Your task to perform on an android device: turn off improve location accuracy Image 0: 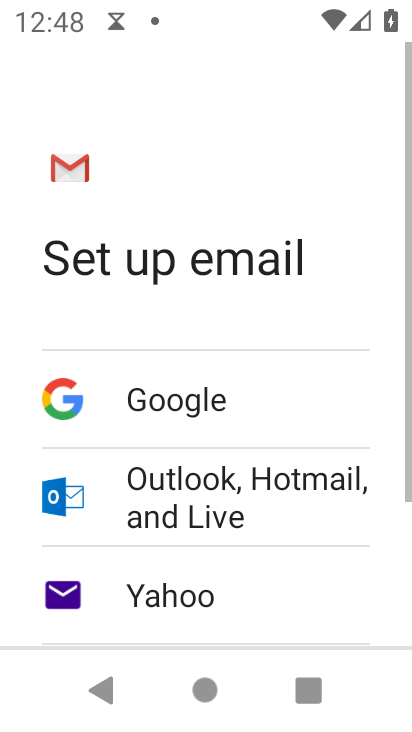
Step 0: press back button
Your task to perform on an android device: turn off improve location accuracy Image 1: 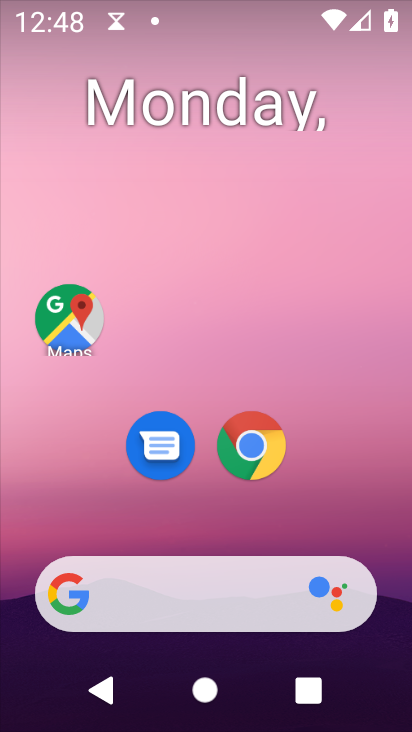
Step 1: drag from (331, 699) to (97, 177)
Your task to perform on an android device: turn off improve location accuracy Image 2: 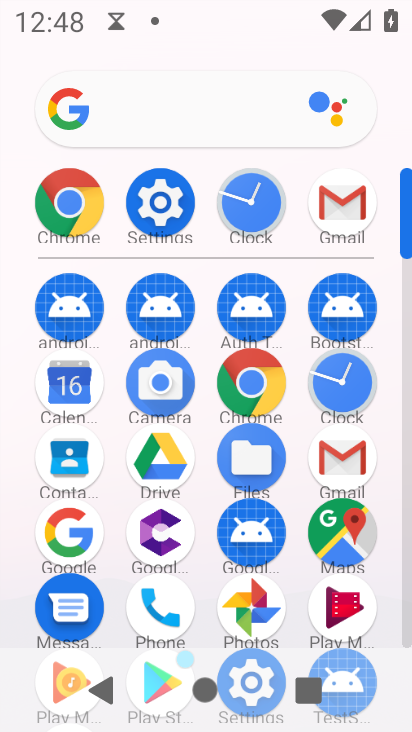
Step 2: click (164, 205)
Your task to perform on an android device: turn off improve location accuracy Image 3: 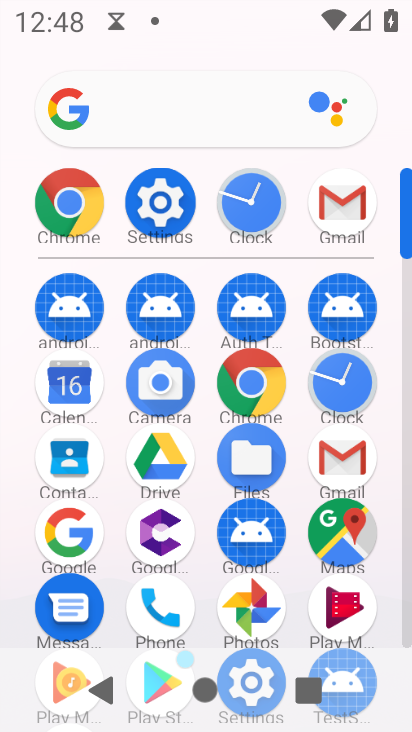
Step 3: click (167, 205)
Your task to perform on an android device: turn off improve location accuracy Image 4: 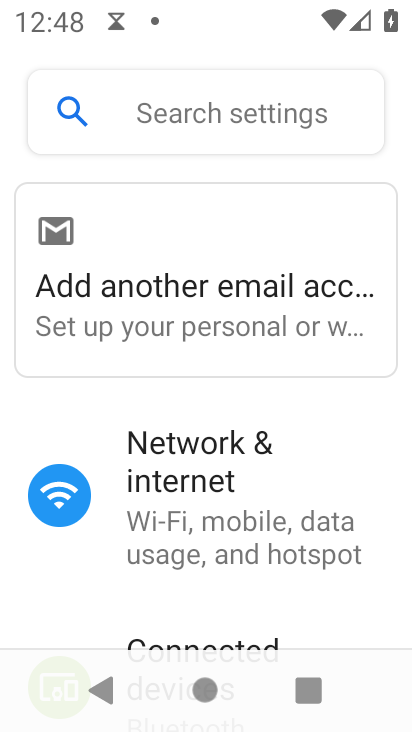
Step 4: drag from (285, 526) to (275, 162)
Your task to perform on an android device: turn off improve location accuracy Image 5: 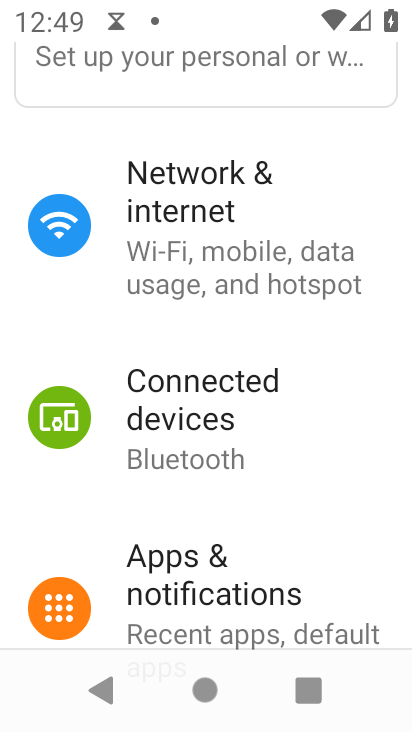
Step 5: drag from (306, 493) to (235, 73)
Your task to perform on an android device: turn off improve location accuracy Image 6: 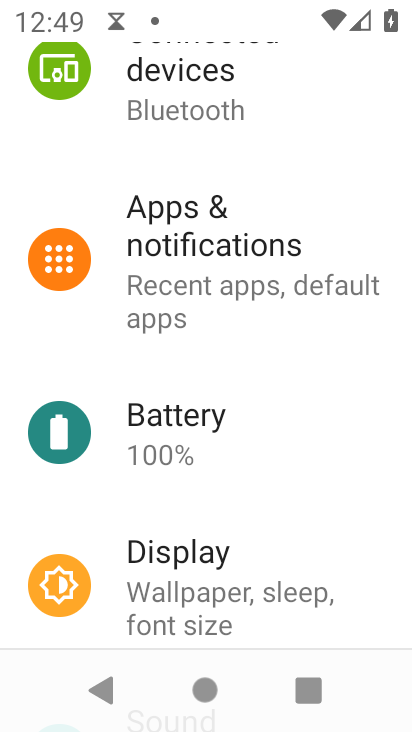
Step 6: drag from (240, 399) to (192, 82)
Your task to perform on an android device: turn off improve location accuracy Image 7: 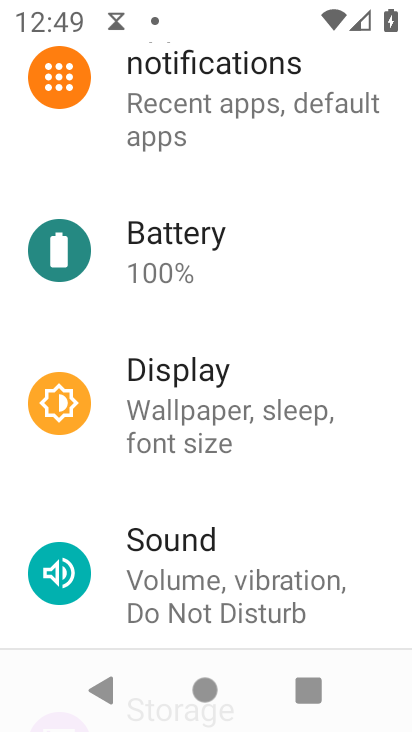
Step 7: drag from (211, 405) to (184, 68)
Your task to perform on an android device: turn off improve location accuracy Image 8: 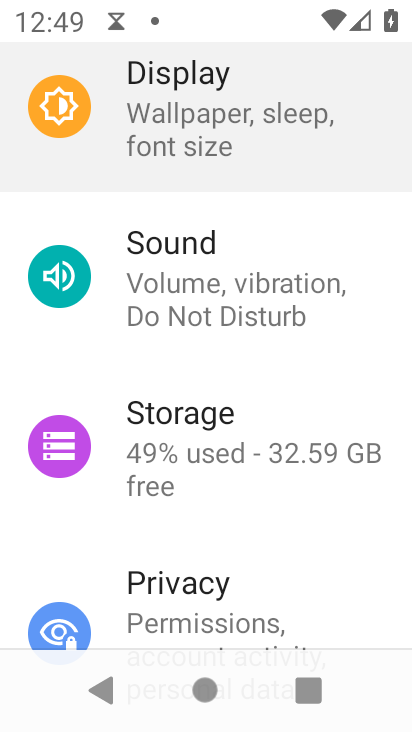
Step 8: drag from (218, 357) to (162, 106)
Your task to perform on an android device: turn off improve location accuracy Image 9: 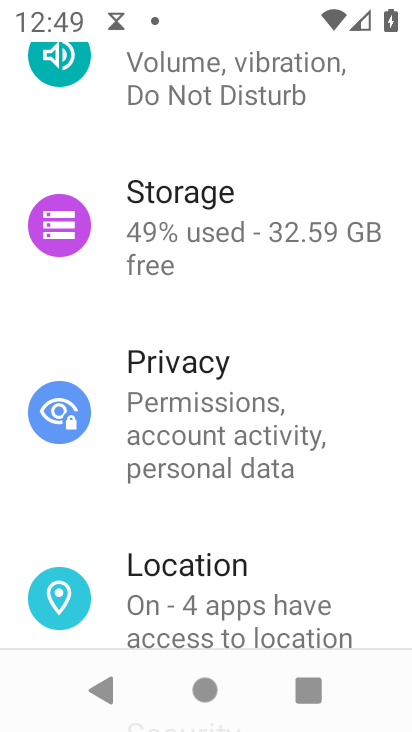
Step 9: click (200, 610)
Your task to perform on an android device: turn off improve location accuracy Image 10: 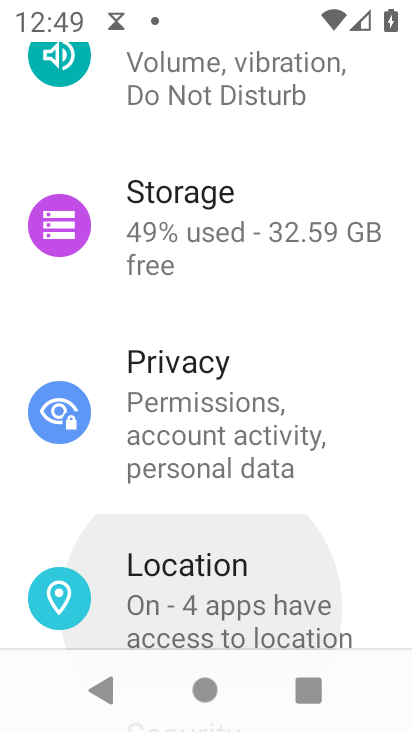
Step 10: click (200, 610)
Your task to perform on an android device: turn off improve location accuracy Image 11: 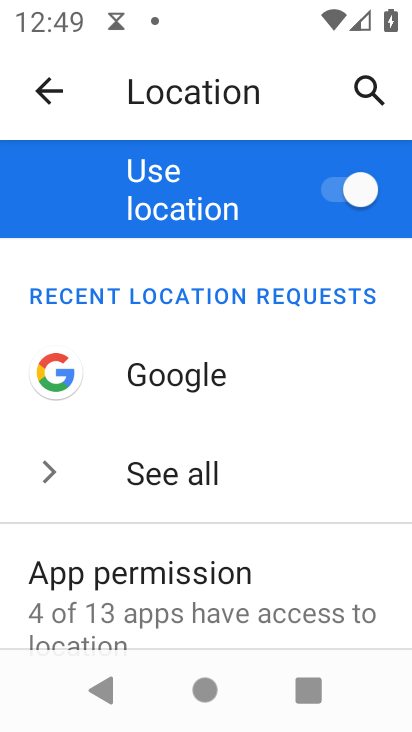
Step 11: click (38, 88)
Your task to perform on an android device: turn off improve location accuracy Image 12: 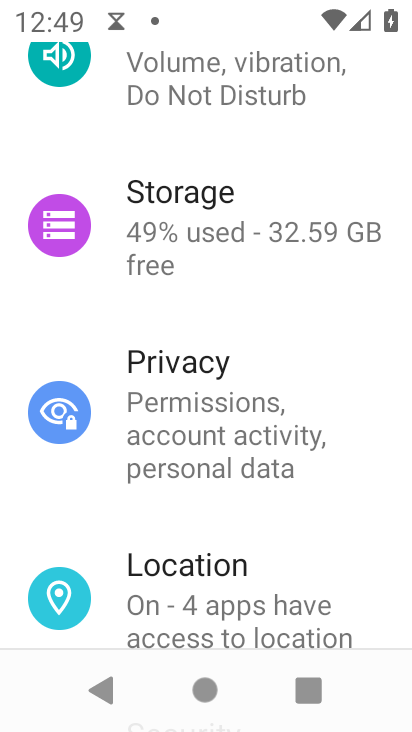
Step 12: click (192, 587)
Your task to perform on an android device: turn off improve location accuracy Image 13: 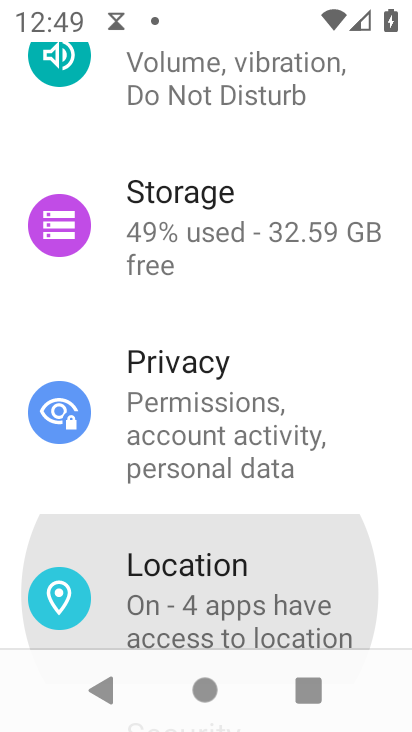
Step 13: click (192, 587)
Your task to perform on an android device: turn off improve location accuracy Image 14: 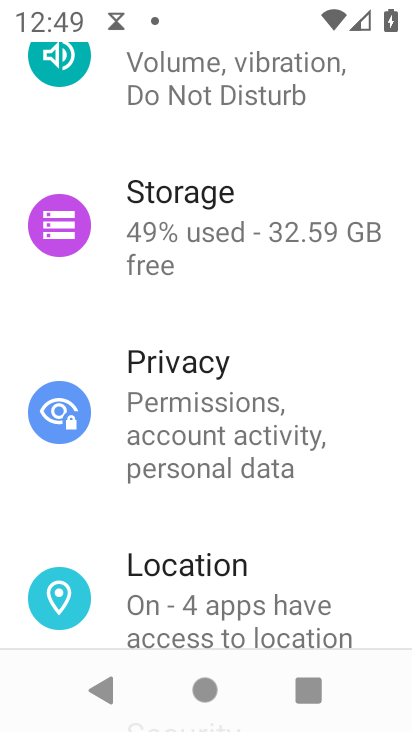
Step 14: click (192, 587)
Your task to perform on an android device: turn off improve location accuracy Image 15: 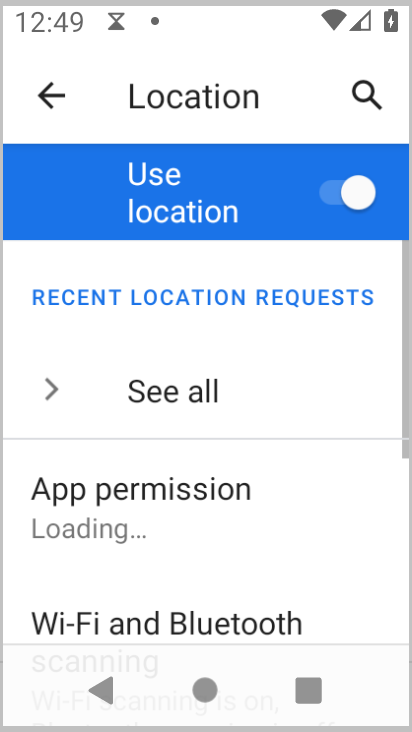
Step 15: click (192, 587)
Your task to perform on an android device: turn off improve location accuracy Image 16: 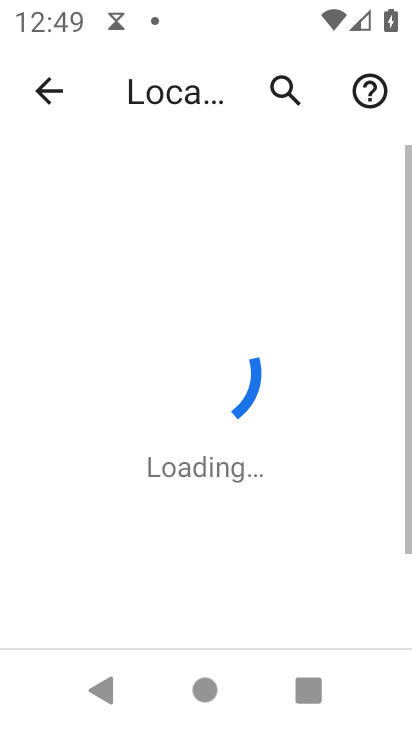
Step 16: drag from (205, 412) to (203, 107)
Your task to perform on an android device: turn off improve location accuracy Image 17: 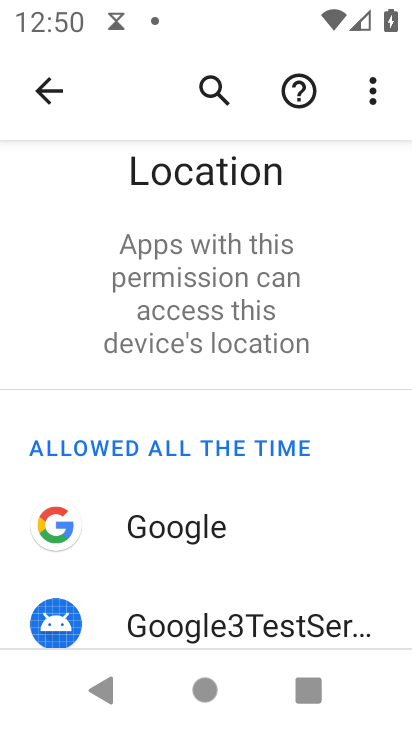
Step 17: click (48, 84)
Your task to perform on an android device: turn off improve location accuracy Image 18: 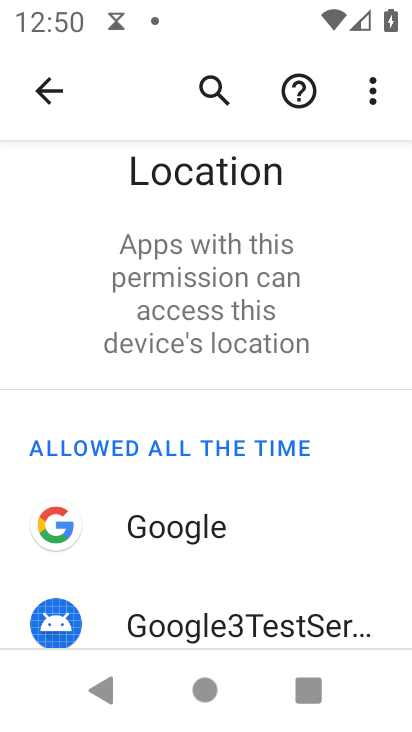
Step 18: click (49, 84)
Your task to perform on an android device: turn off improve location accuracy Image 19: 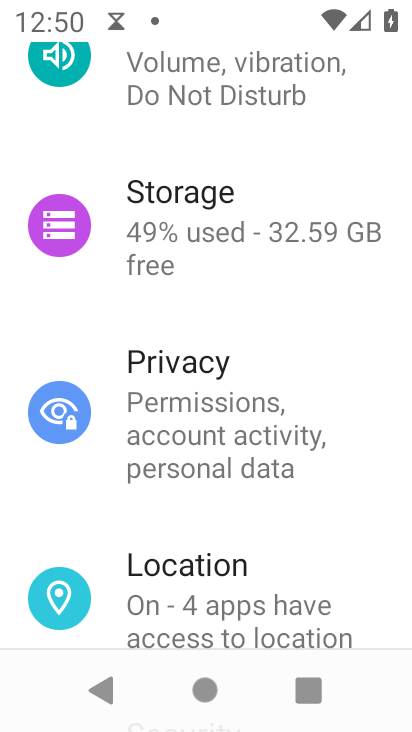
Step 19: drag from (225, 500) to (194, 153)
Your task to perform on an android device: turn off improve location accuracy Image 20: 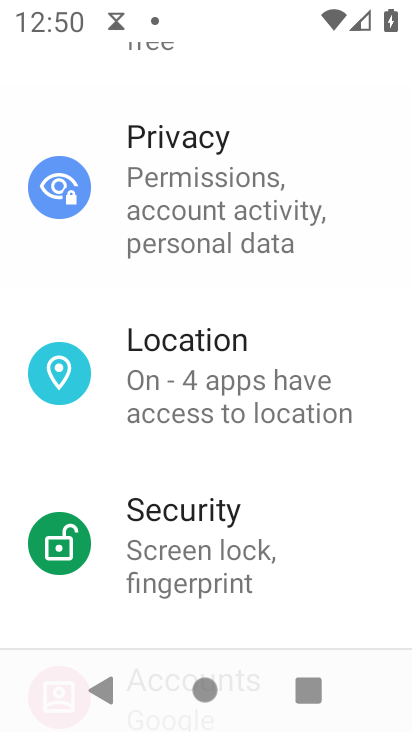
Step 20: drag from (198, 451) to (212, 182)
Your task to perform on an android device: turn off improve location accuracy Image 21: 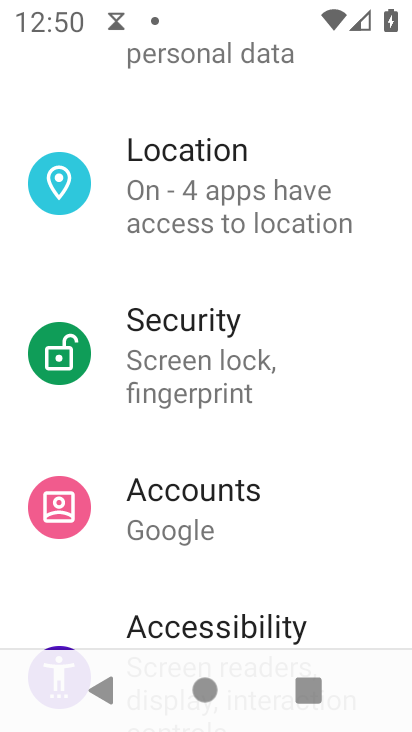
Step 21: drag from (219, 410) to (227, 139)
Your task to perform on an android device: turn off improve location accuracy Image 22: 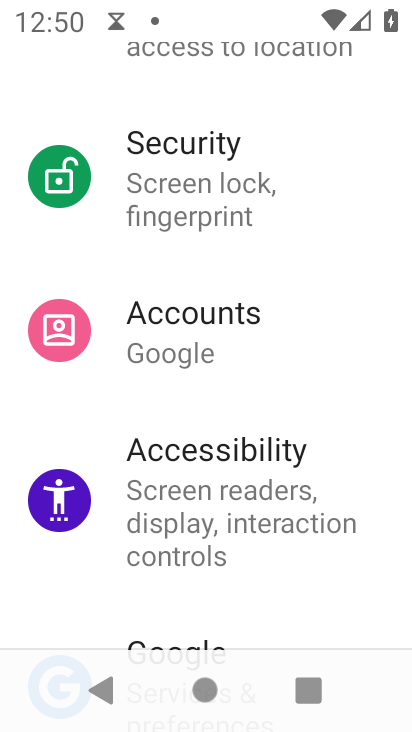
Step 22: drag from (188, 269) to (218, 498)
Your task to perform on an android device: turn off improve location accuracy Image 23: 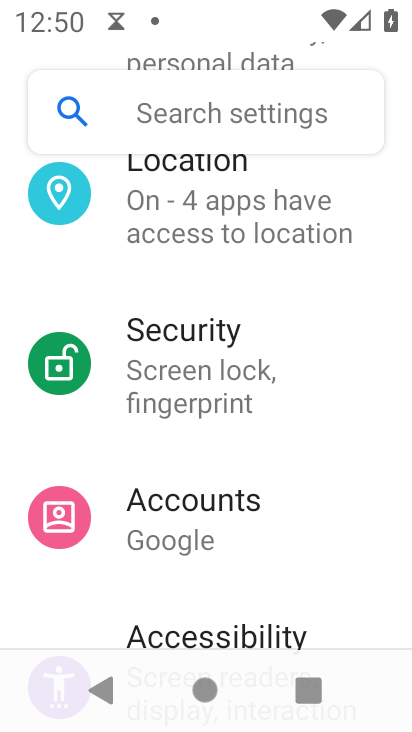
Step 23: drag from (211, 207) to (210, 543)
Your task to perform on an android device: turn off improve location accuracy Image 24: 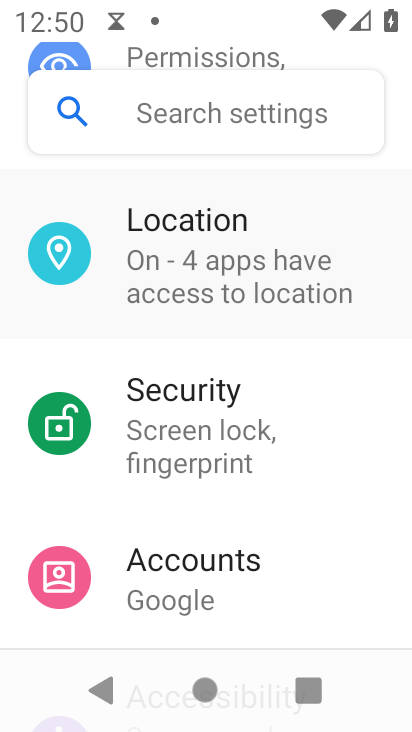
Step 24: drag from (193, 382) to (212, 522)
Your task to perform on an android device: turn off improve location accuracy Image 25: 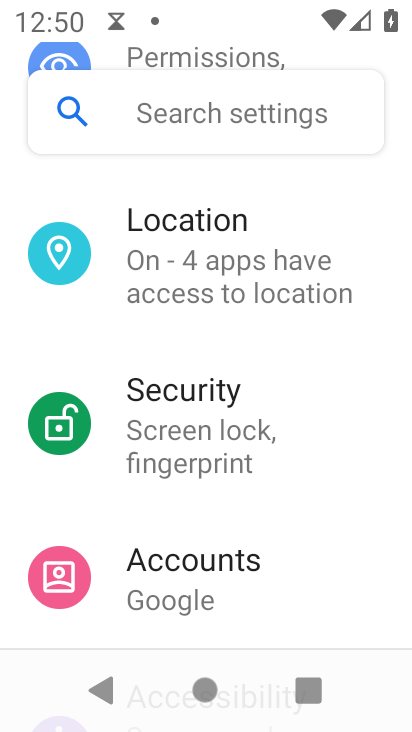
Step 25: drag from (204, 283) to (218, 553)
Your task to perform on an android device: turn off improve location accuracy Image 26: 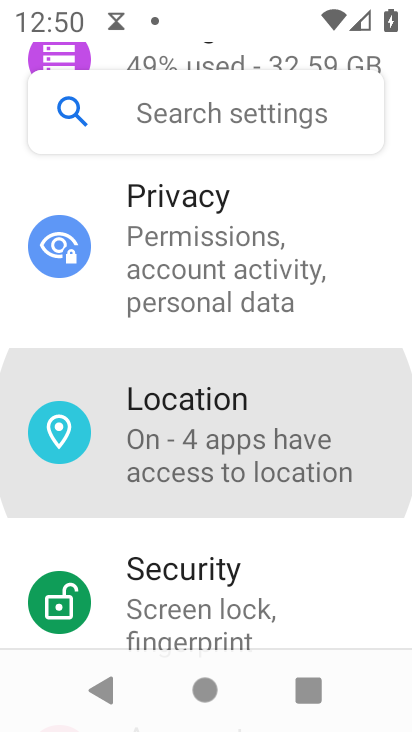
Step 26: drag from (185, 313) to (201, 633)
Your task to perform on an android device: turn off improve location accuracy Image 27: 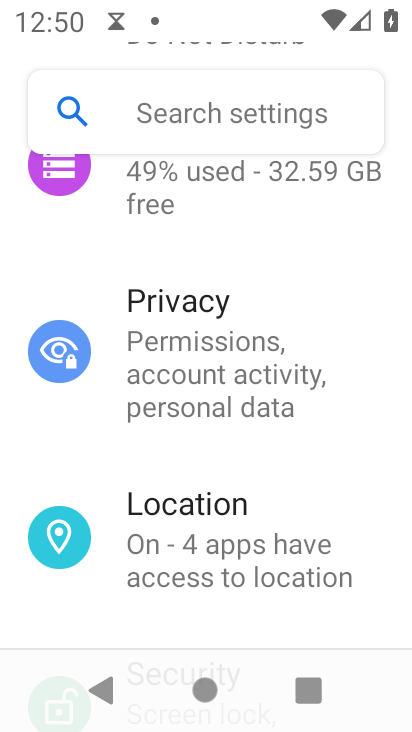
Step 27: drag from (148, 300) to (209, 615)
Your task to perform on an android device: turn off improve location accuracy Image 28: 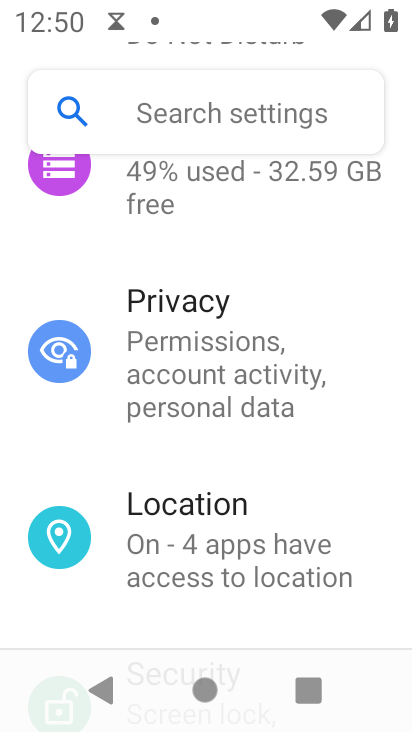
Step 28: drag from (235, 295) to (284, 610)
Your task to perform on an android device: turn off improve location accuracy Image 29: 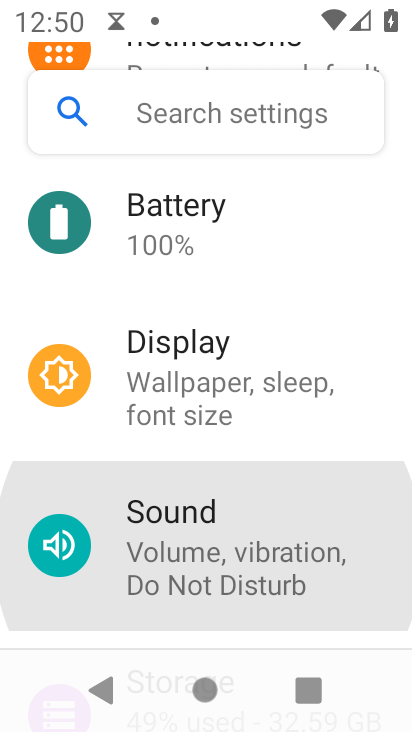
Step 29: drag from (245, 248) to (305, 537)
Your task to perform on an android device: turn off improve location accuracy Image 30: 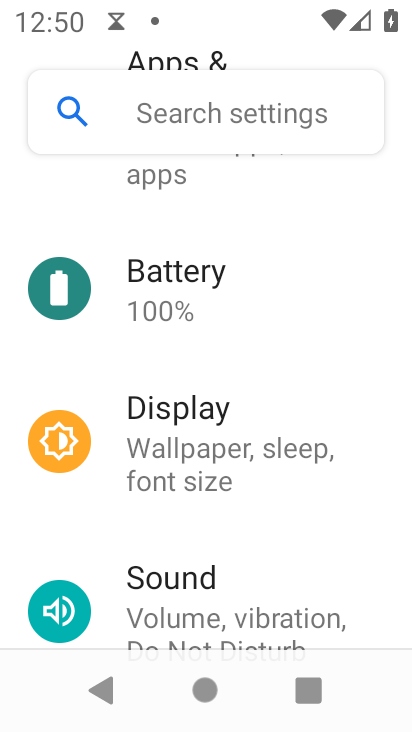
Step 30: drag from (273, 320) to (273, 652)
Your task to perform on an android device: turn off improve location accuracy Image 31: 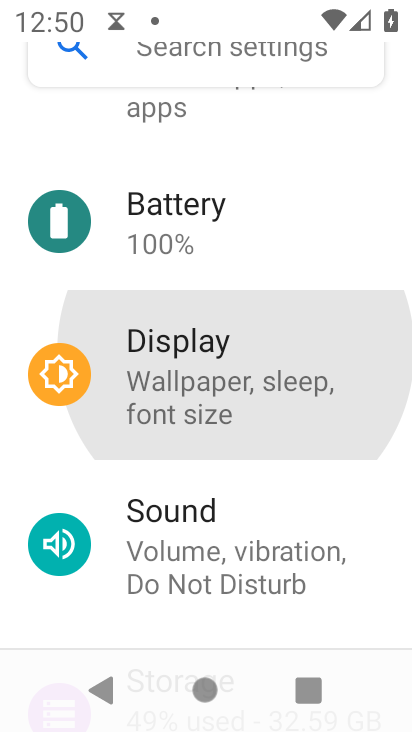
Step 31: drag from (106, 288) to (191, 659)
Your task to perform on an android device: turn off improve location accuracy Image 32: 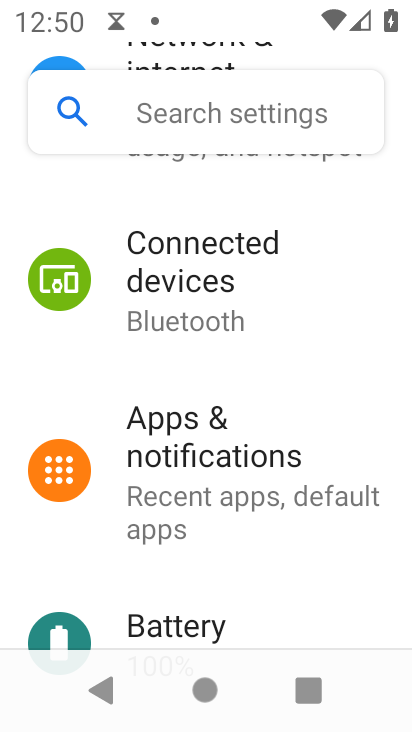
Step 32: drag from (195, 316) to (232, 640)
Your task to perform on an android device: turn off improve location accuracy Image 33: 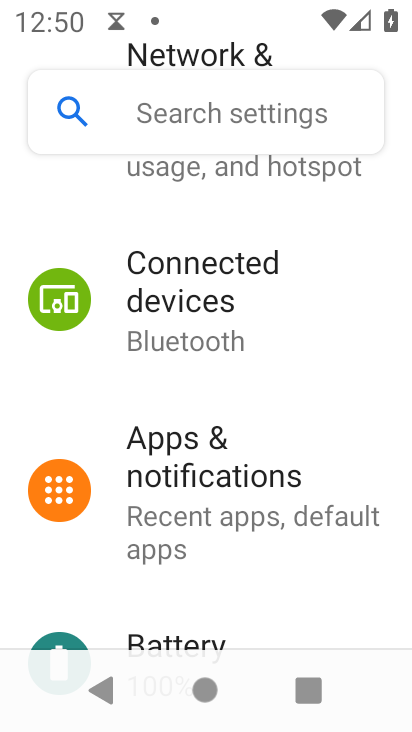
Step 33: drag from (164, 314) to (186, 565)
Your task to perform on an android device: turn off improve location accuracy Image 34: 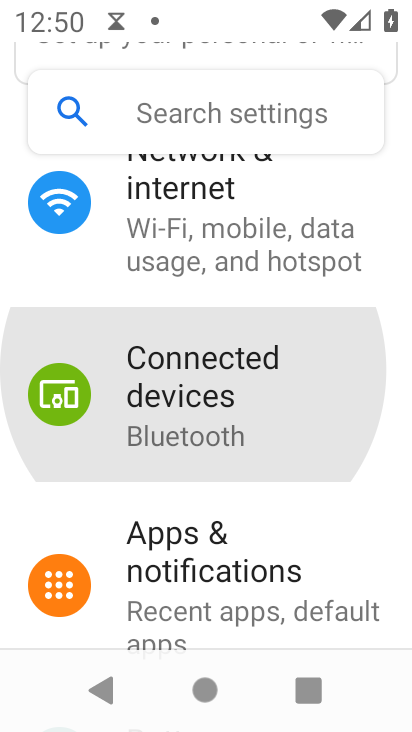
Step 34: drag from (68, 267) to (147, 585)
Your task to perform on an android device: turn off improve location accuracy Image 35: 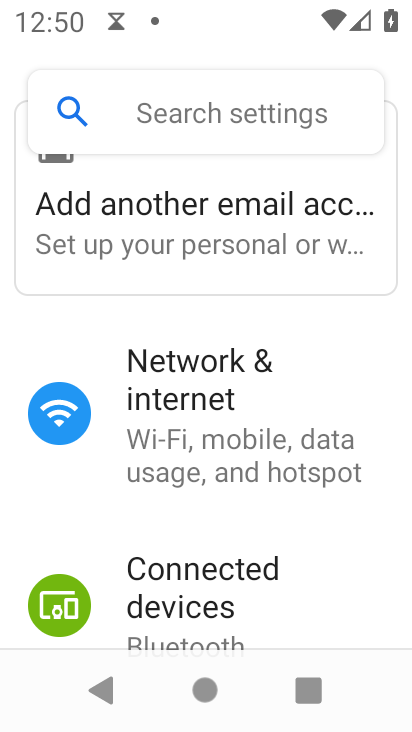
Step 35: drag from (140, 300) to (170, 638)
Your task to perform on an android device: turn off improve location accuracy Image 36: 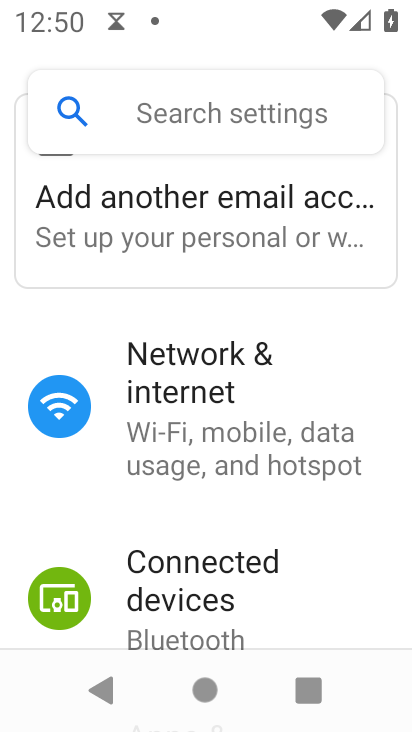
Step 36: drag from (202, 529) to (265, 142)
Your task to perform on an android device: turn off improve location accuracy Image 37: 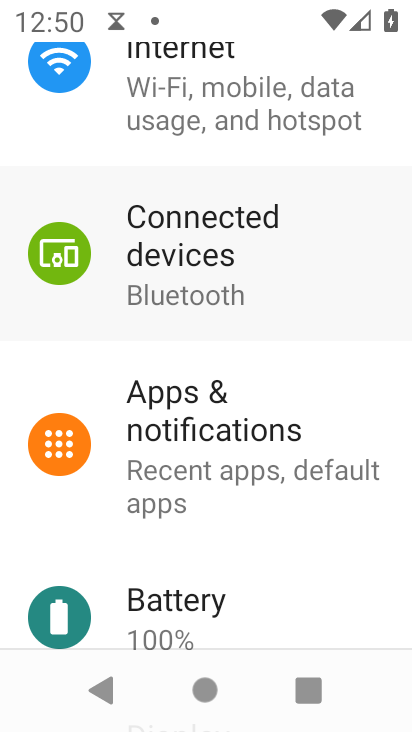
Step 37: drag from (266, 527) to (252, 331)
Your task to perform on an android device: turn off improve location accuracy Image 38: 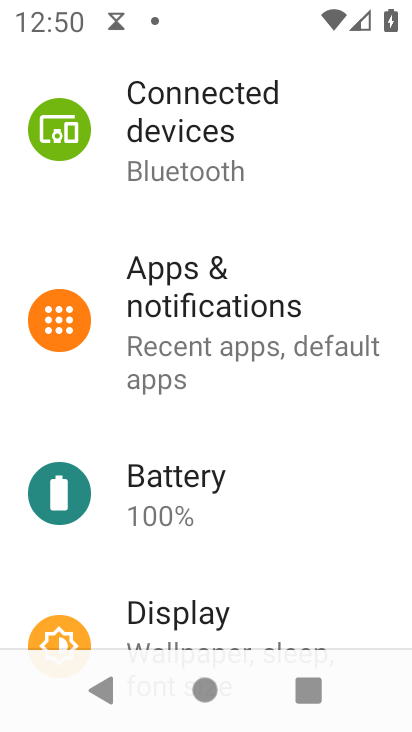
Step 38: drag from (239, 542) to (214, 262)
Your task to perform on an android device: turn off improve location accuracy Image 39: 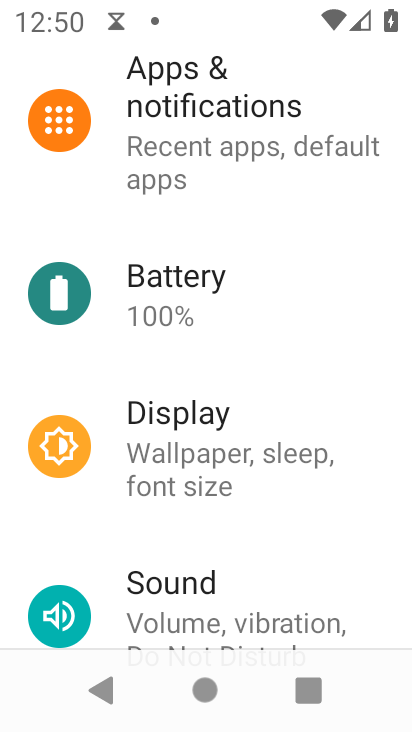
Step 39: drag from (190, 544) to (209, 117)
Your task to perform on an android device: turn off improve location accuracy Image 40: 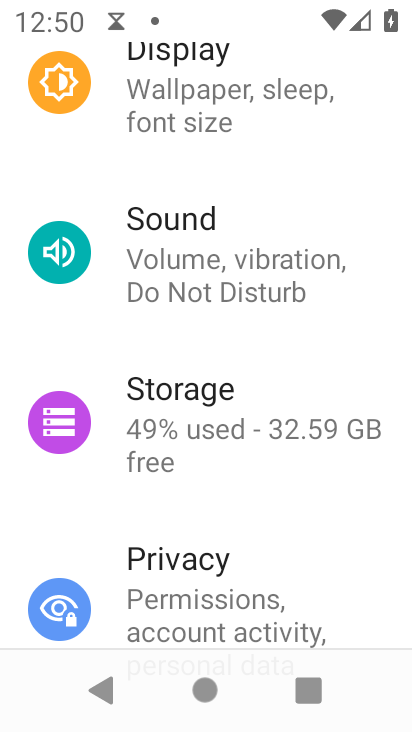
Step 40: drag from (215, 447) to (206, 215)
Your task to perform on an android device: turn off improve location accuracy Image 41: 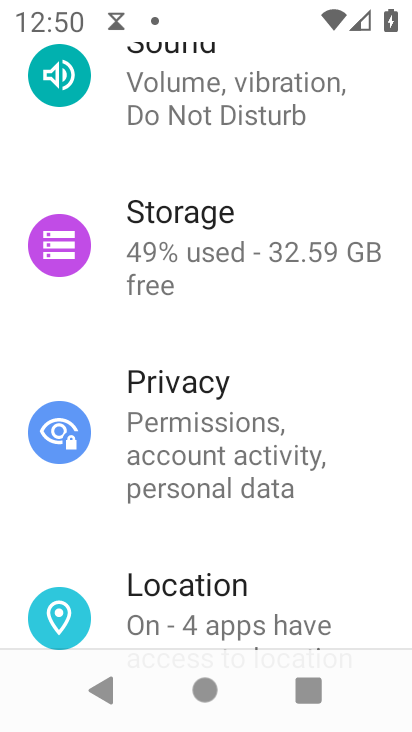
Step 41: drag from (219, 365) to (208, 117)
Your task to perform on an android device: turn off improve location accuracy Image 42: 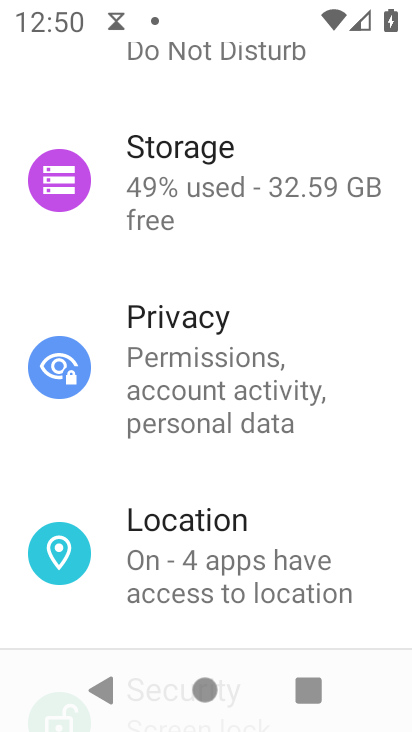
Step 42: drag from (211, 349) to (211, 83)
Your task to perform on an android device: turn off improve location accuracy Image 43: 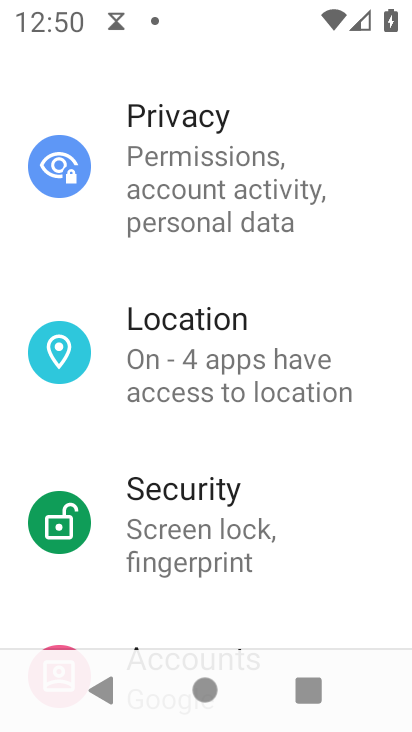
Step 43: click (205, 367)
Your task to perform on an android device: turn off improve location accuracy Image 44: 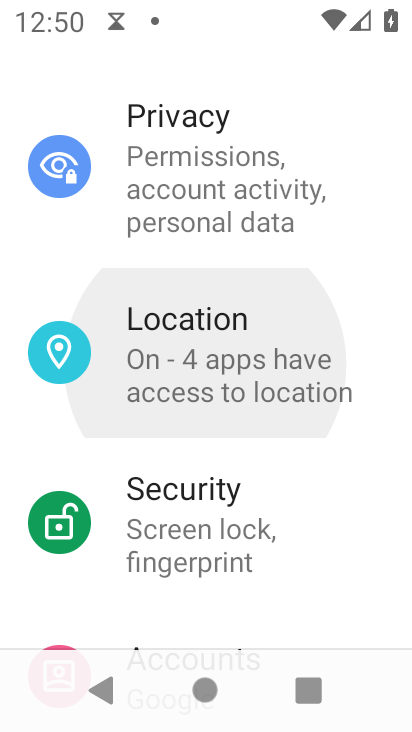
Step 44: click (225, 380)
Your task to perform on an android device: turn off improve location accuracy Image 45: 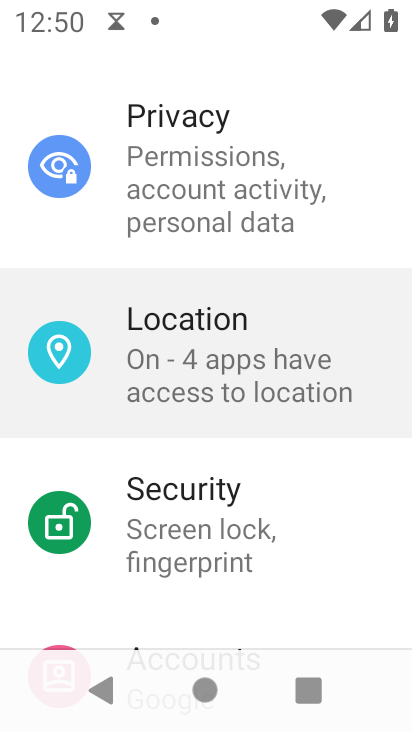
Step 45: click (227, 381)
Your task to perform on an android device: turn off improve location accuracy Image 46: 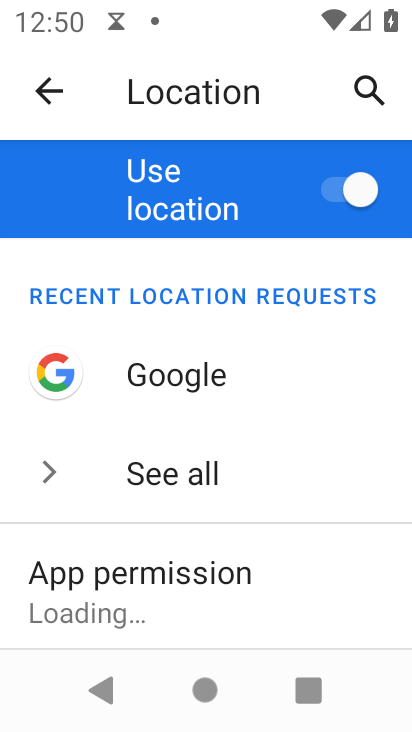
Step 46: drag from (180, 482) to (174, 196)
Your task to perform on an android device: turn off improve location accuracy Image 47: 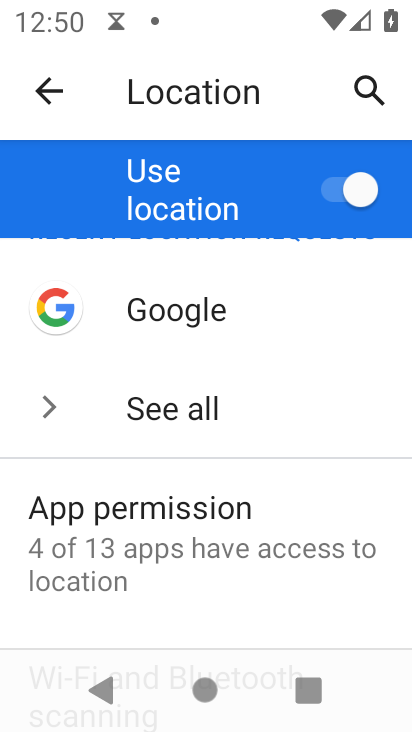
Step 47: drag from (173, 500) to (137, 297)
Your task to perform on an android device: turn off improve location accuracy Image 48: 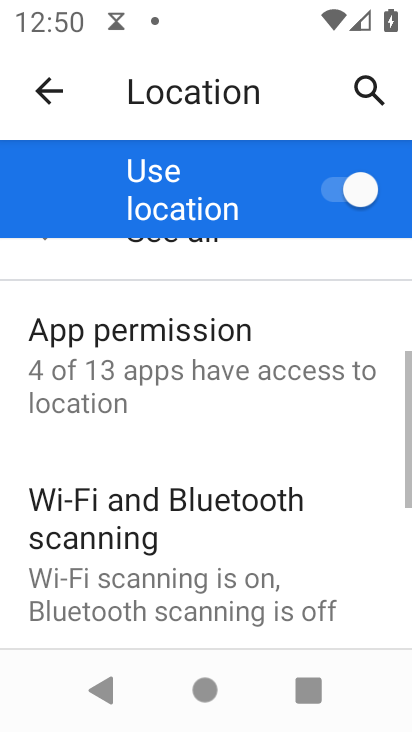
Step 48: drag from (146, 393) to (141, 189)
Your task to perform on an android device: turn off improve location accuracy Image 49: 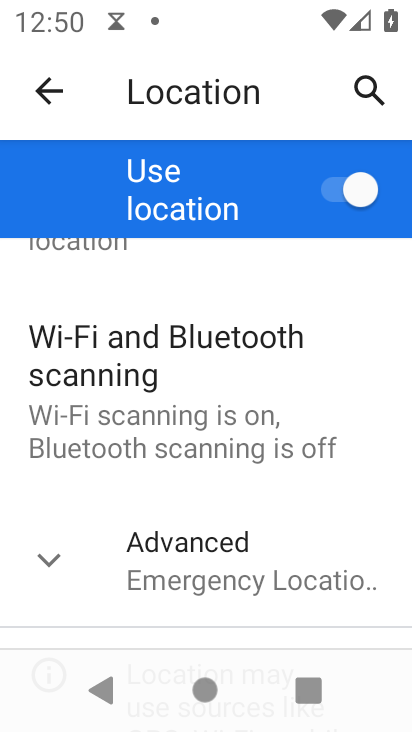
Step 49: click (214, 558)
Your task to perform on an android device: turn off improve location accuracy Image 50: 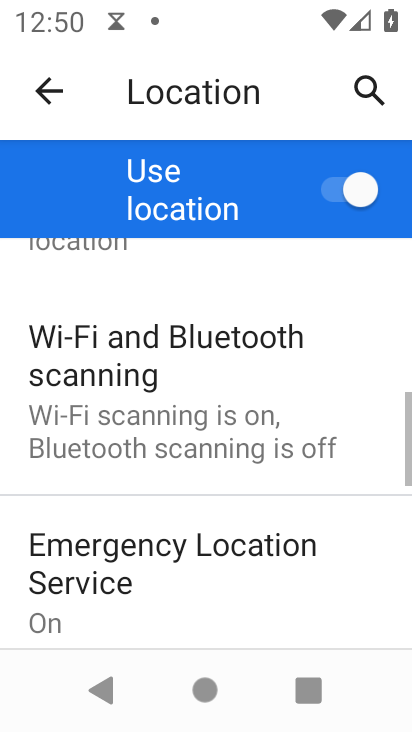
Step 50: drag from (223, 548) to (213, 264)
Your task to perform on an android device: turn off improve location accuracy Image 51: 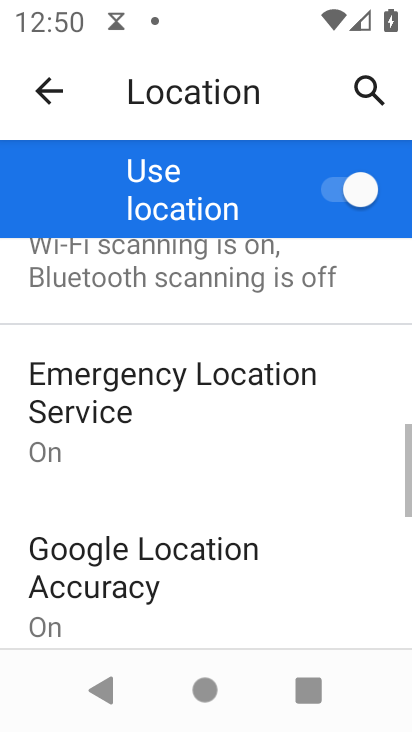
Step 51: drag from (243, 420) to (242, 263)
Your task to perform on an android device: turn off improve location accuracy Image 52: 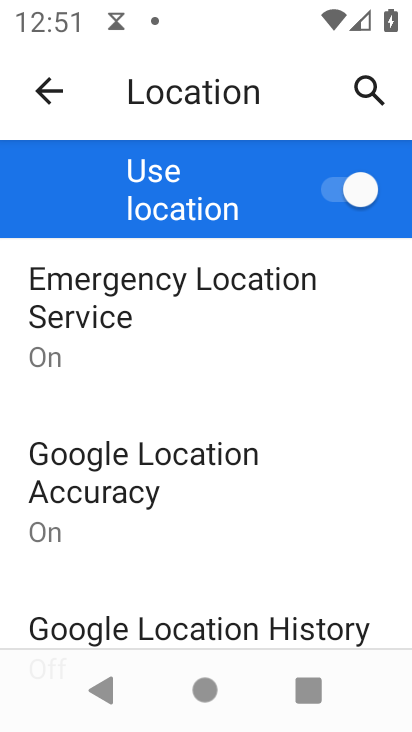
Step 52: click (106, 480)
Your task to perform on an android device: turn off improve location accuracy Image 53: 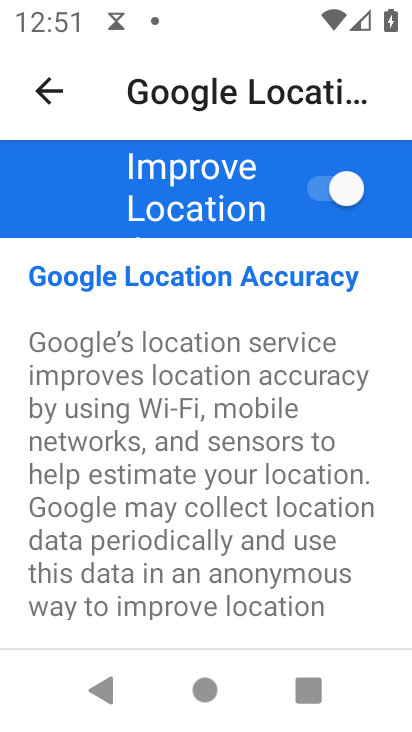
Step 53: click (347, 196)
Your task to perform on an android device: turn off improve location accuracy Image 54: 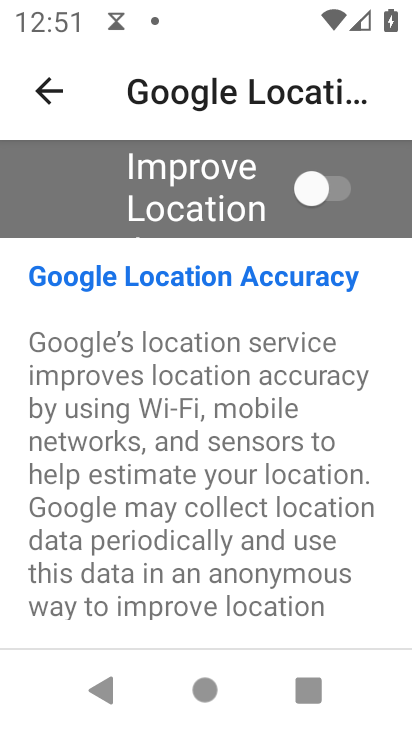
Step 54: task complete